Your task to perform on an android device: toggle airplane mode Image 0: 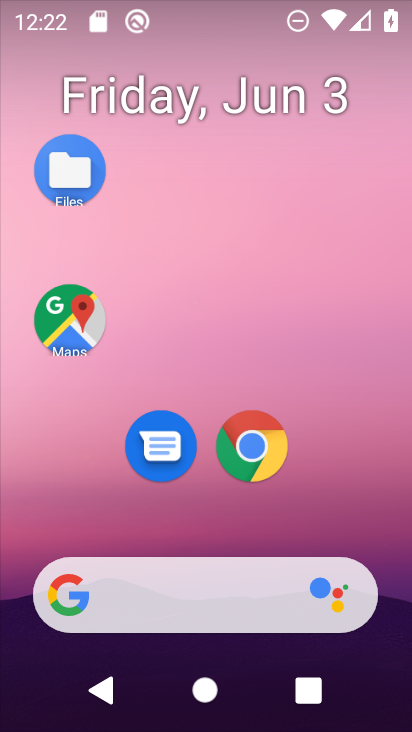
Step 0: drag from (258, 701) to (204, 98)
Your task to perform on an android device: toggle airplane mode Image 1: 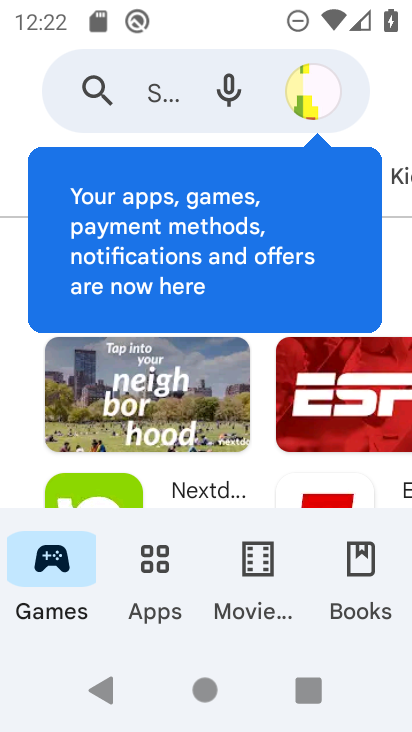
Step 1: press back button
Your task to perform on an android device: toggle airplane mode Image 2: 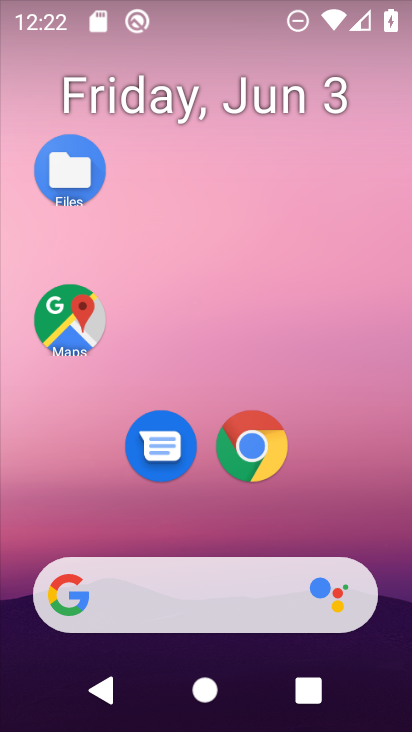
Step 2: drag from (263, 699) to (256, 129)
Your task to perform on an android device: toggle airplane mode Image 3: 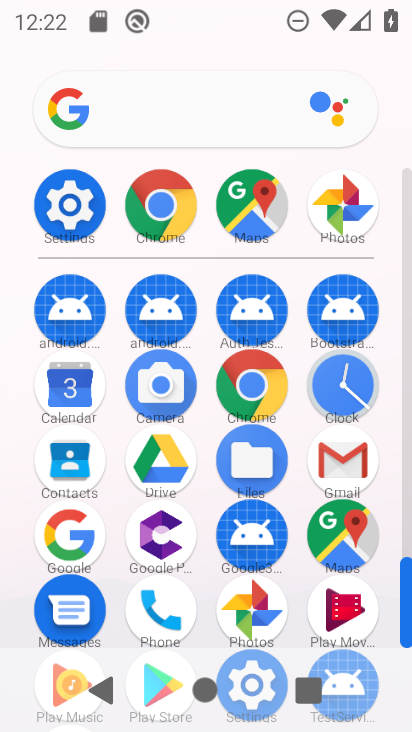
Step 3: click (60, 202)
Your task to perform on an android device: toggle airplane mode Image 4: 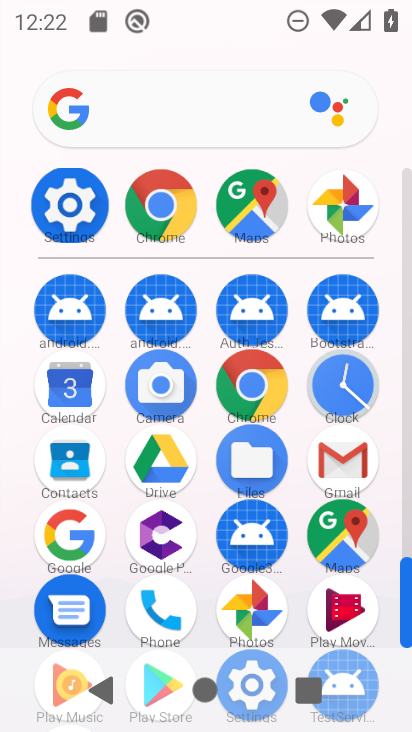
Step 4: click (60, 202)
Your task to perform on an android device: toggle airplane mode Image 5: 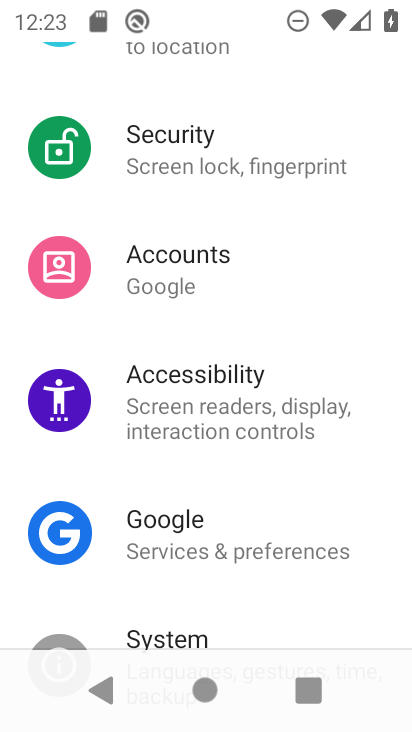
Step 5: drag from (148, 244) to (290, 658)
Your task to perform on an android device: toggle airplane mode Image 6: 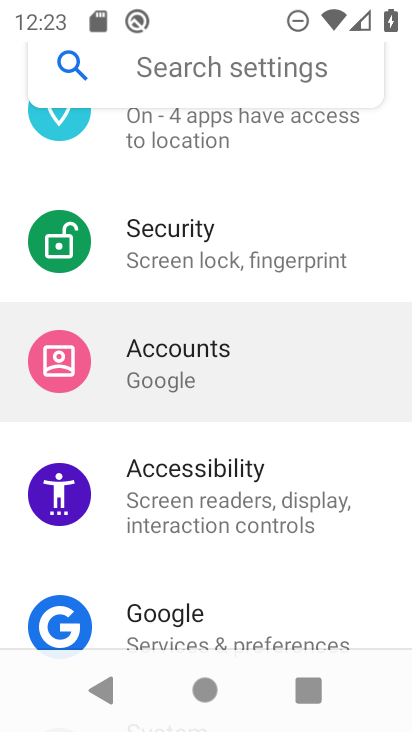
Step 6: drag from (173, 295) to (296, 713)
Your task to perform on an android device: toggle airplane mode Image 7: 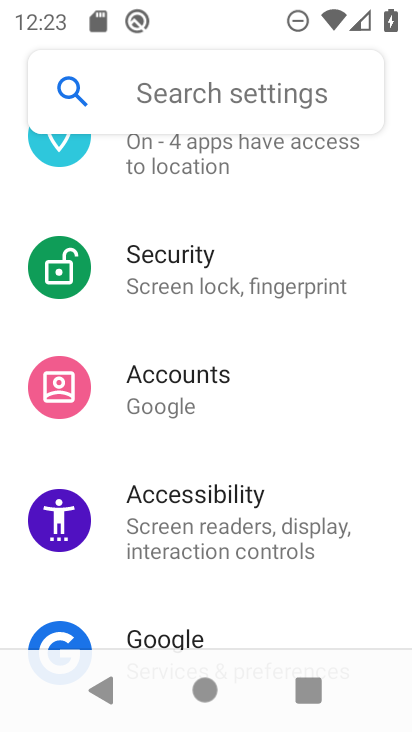
Step 7: drag from (254, 280) to (304, 446)
Your task to perform on an android device: toggle airplane mode Image 8: 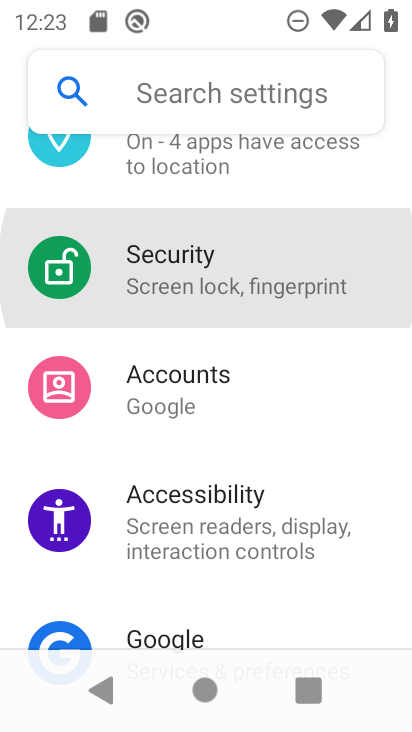
Step 8: drag from (227, 231) to (231, 427)
Your task to perform on an android device: toggle airplane mode Image 9: 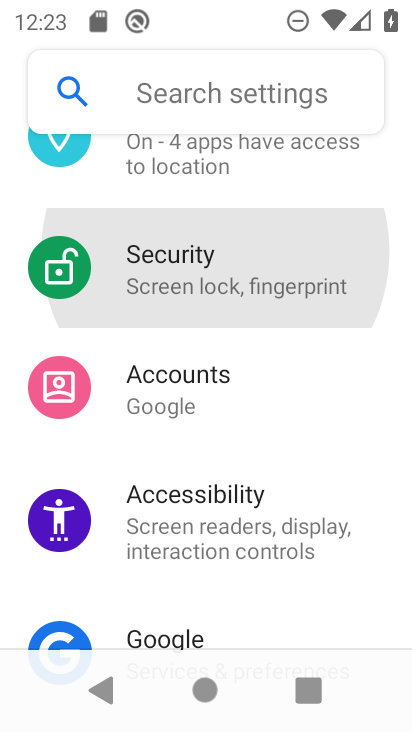
Step 9: drag from (132, 120) to (238, 559)
Your task to perform on an android device: toggle airplane mode Image 10: 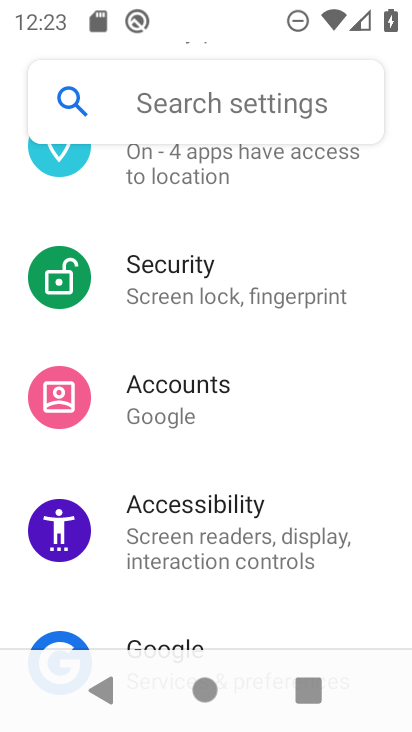
Step 10: drag from (160, 236) to (205, 490)
Your task to perform on an android device: toggle airplane mode Image 11: 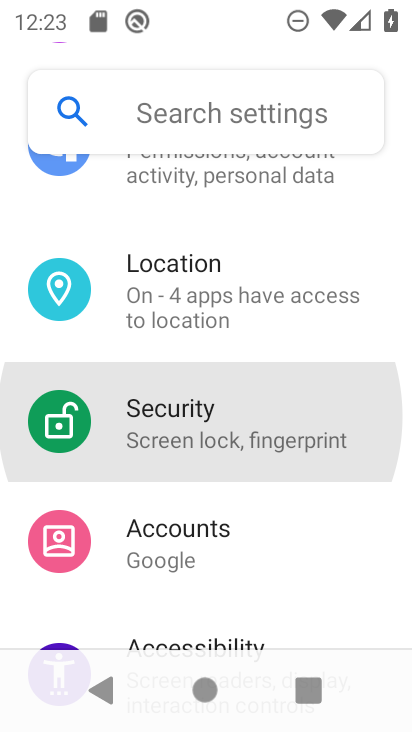
Step 11: drag from (142, 254) to (183, 553)
Your task to perform on an android device: toggle airplane mode Image 12: 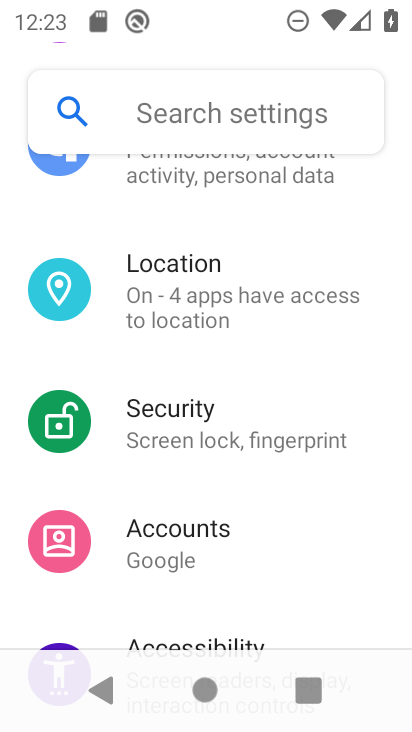
Step 12: drag from (197, 193) to (192, 477)
Your task to perform on an android device: toggle airplane mode Image 13: 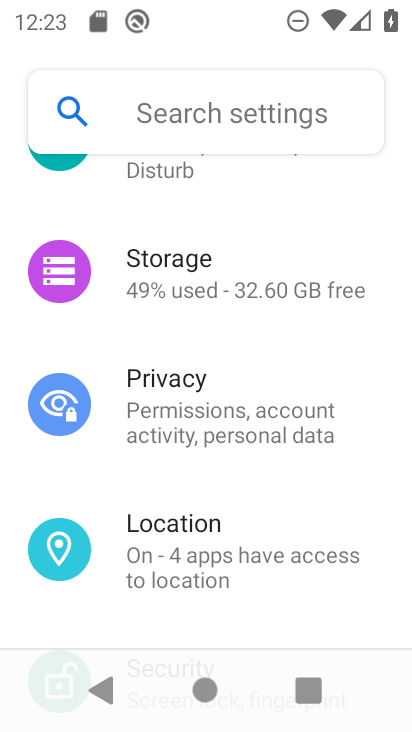
Step 13: drag from (184, 169) to (203, 327)
Your task to perform on an android device: toggle airplane mode Image 14: 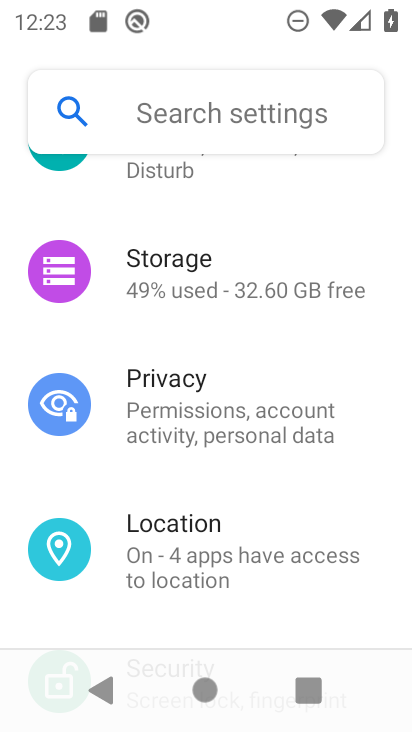
Step 14: drag from (180, 236) to (239, 441)
Your task to perform on an android device: toggle airplane mode Image 15: 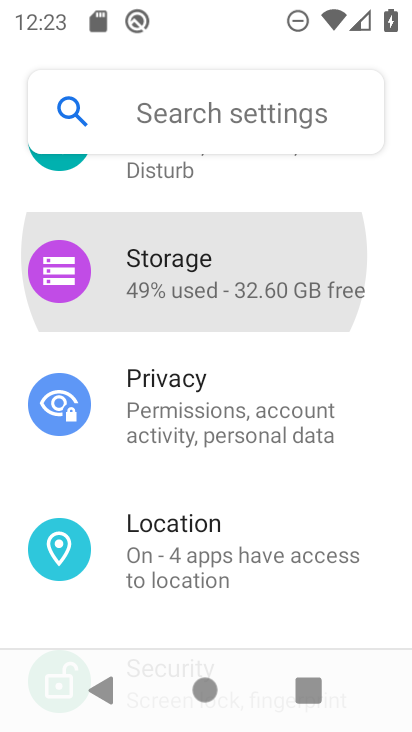
Step 15: drag from (224, 120) to (177, 551)
Your task to perform on an android device: toggle airplane mode Image 16: 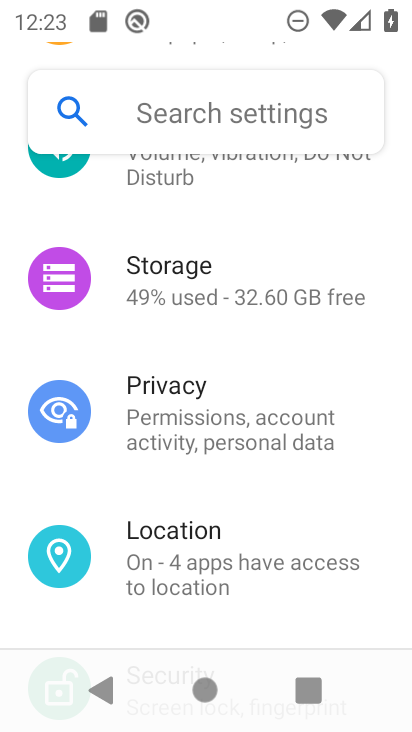
Step 16: drag from (209, 287) to (236, 533)
Your task to perform on an android device: toggle airplane mode Image 17: 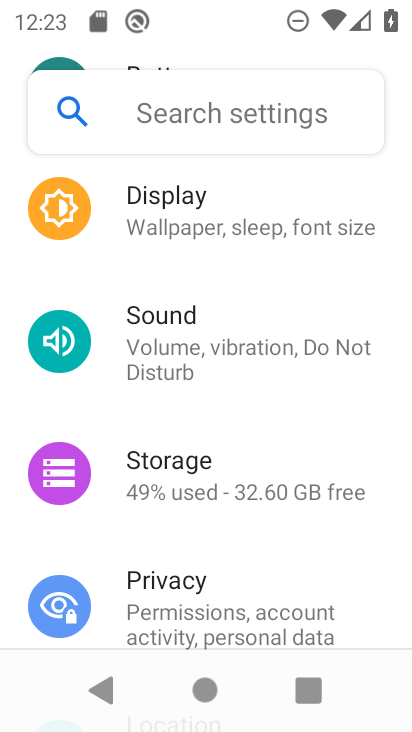
Step 17: drag from (189, 257) to (205, 554)
Your task to perform on an android device: toggle airplane mode Image 18: 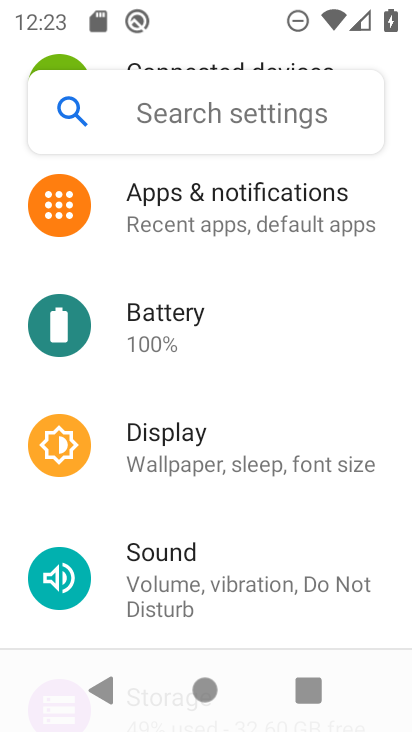
Step 18: drag from (182, 290) to (210, 559)
Your task to perform on an android device: toggle airplane mode Image 19: 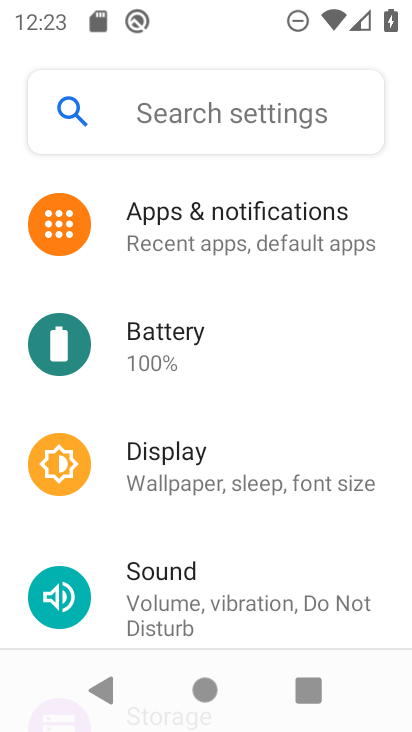
Step 19: drag from (213, 273) to (207, 513)
Your task to perform on an android device: toggle airplane mode Image 20: 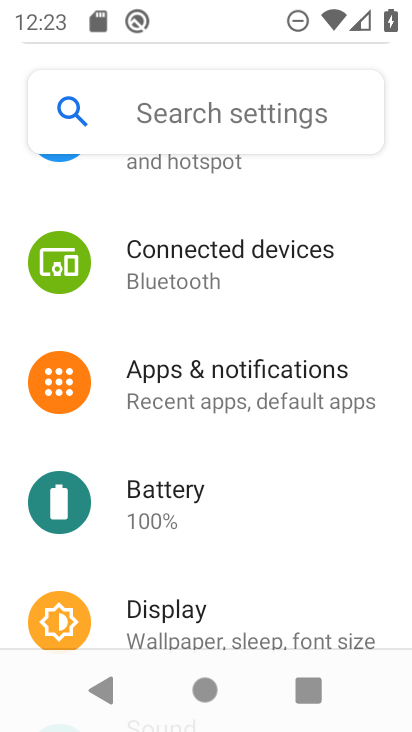
Step 20: click (230, 520)
Your task to perform on an android device: toggle airplane mode Image 21: 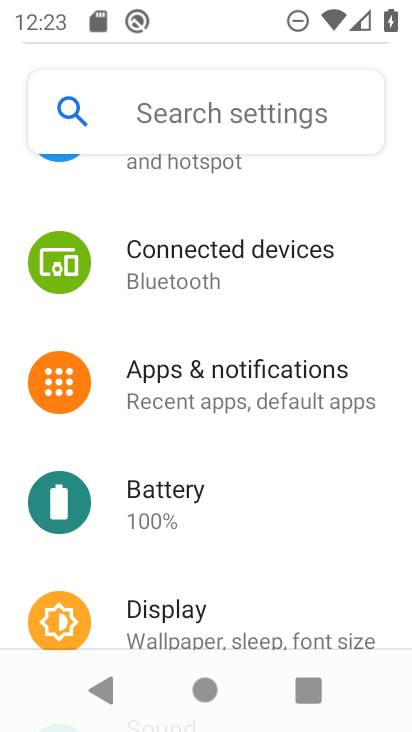
Step 21: drag from (227, 334) to (219, 656)
Your task to perform on an android device: toggle airplane mode Image 22: 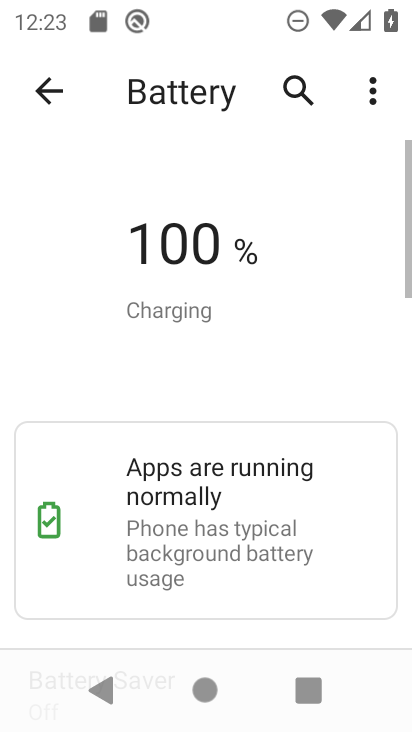
Step 22: click (47, 98)
Your task to perform on an android device: toggle airplane mode Image 23: 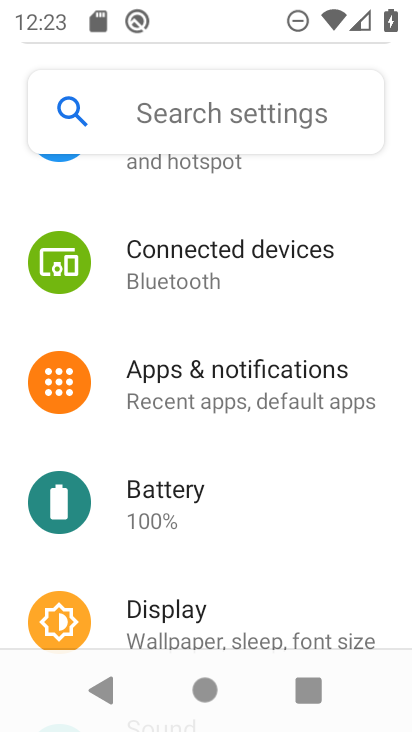
Step 23: drag from (259, 270) to (251, 542)
Your task to perform on an android device: toggle airplane mode Image 24: 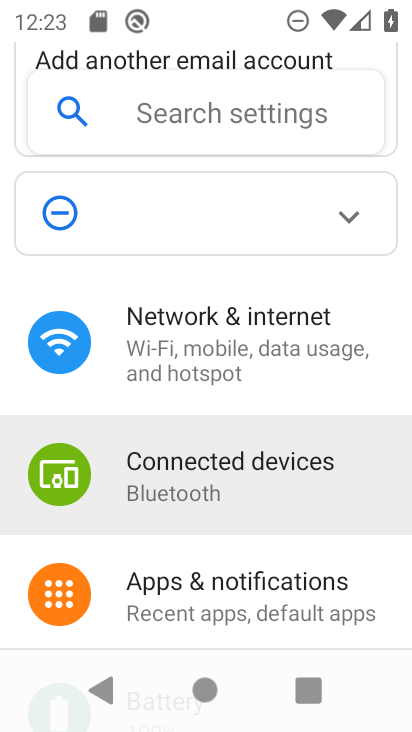
Step 24: drag from (220, 308) to (246, 522)
Your task to perform on an android device: toggle airplane mode Image 25: 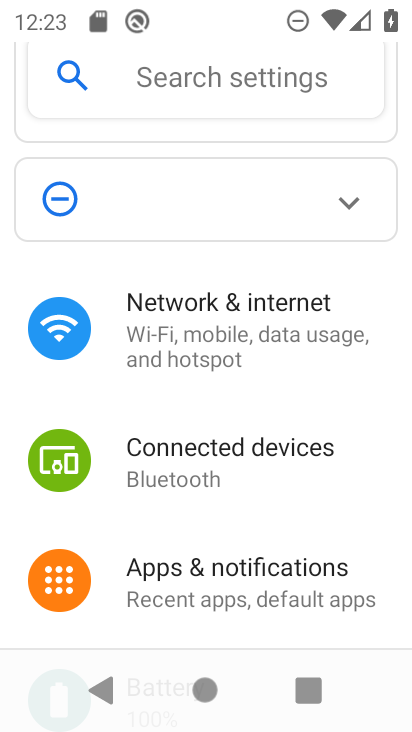
Step 25: click (242, 316)
Your task to perform on an android device: toggle airplane mode Image 26: 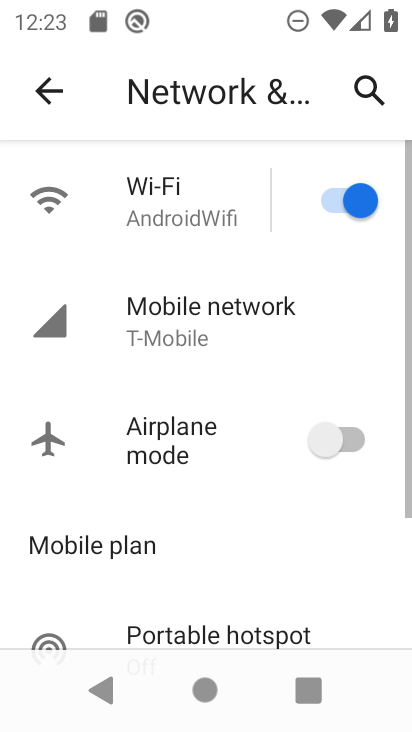
Step 26: click (332, 442)
Your task to perform on an android device: toggle airplane mode Image 27: 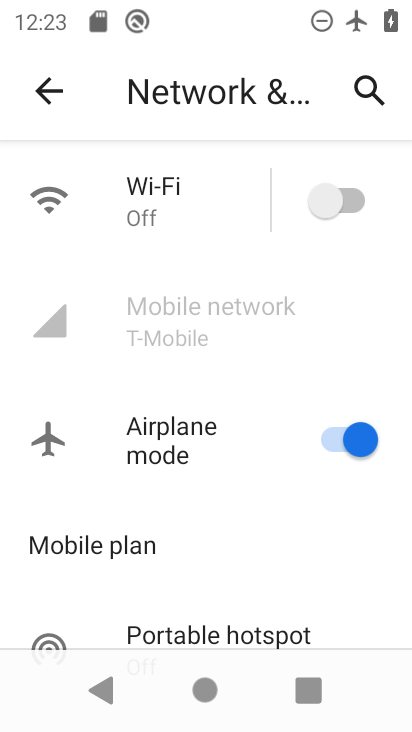
Step 27: task complete